Your task to perform on an android device: turn off wifi Image 0: 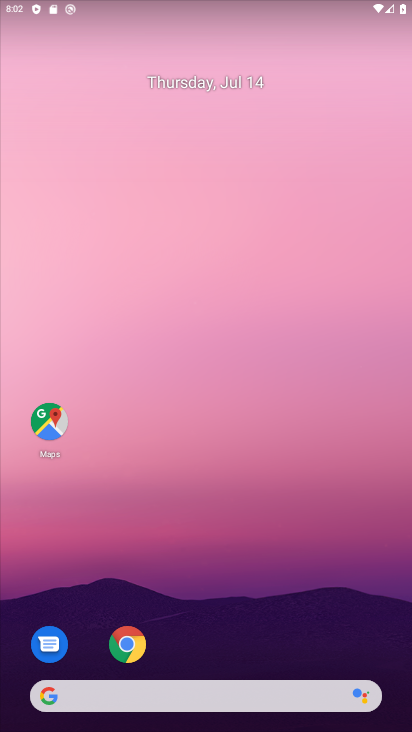
Step 0: drag from (209, 666) to (263, 190)
Your task to perform on an android device: turn off wifi Image 1: 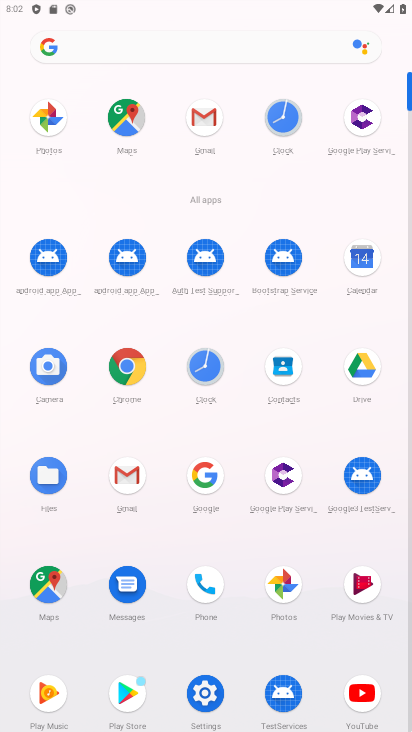
Step 1: drag from (227, 644) to (257, 440)
Your task to perform on an android device: turn off wifi Image 2: 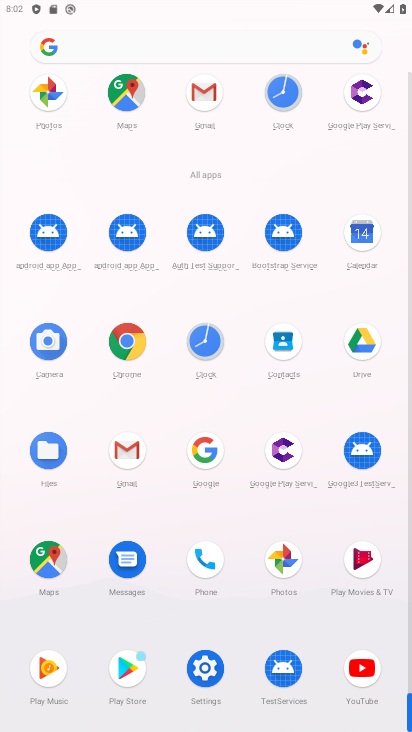
Step 2: drag from (237, 642) to (251, 348)
Your task to perform on an android device: turn off wifi Image 3: 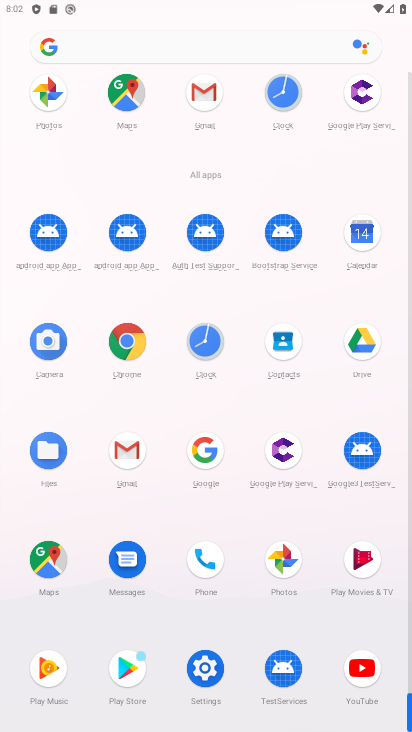
Step 3: drag from (254, 640) to (254, 563)
Your task to perform on an android device: turn off wifi Image 4: 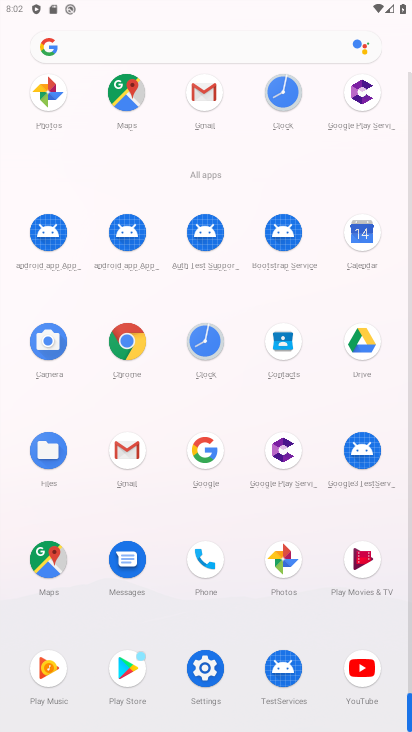
Step 4: drag from (243, 613) to (247, 378)
Your task to perform on an android device: turn off wifi Image 5: 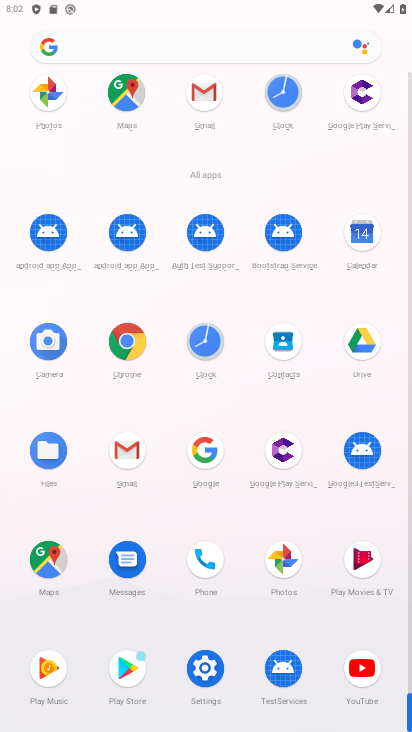
Step 5: drag from (230, 589) to (232, 435)
Your task to perform on an android device: turn off wifi Image 6: 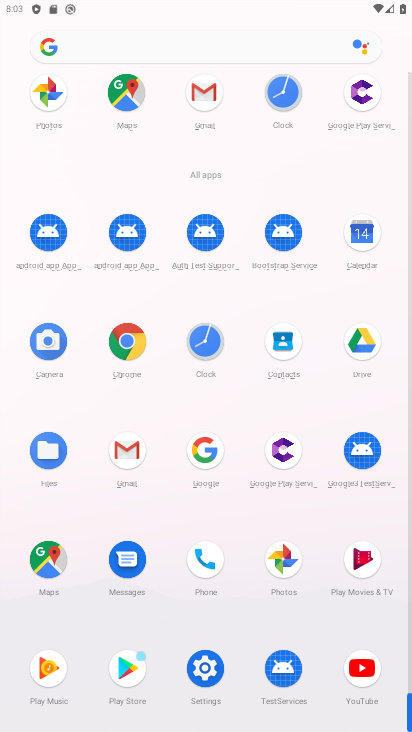
Step 6: click (210, 673)
Your task to perform on an android device: turn off wifi Image 7: 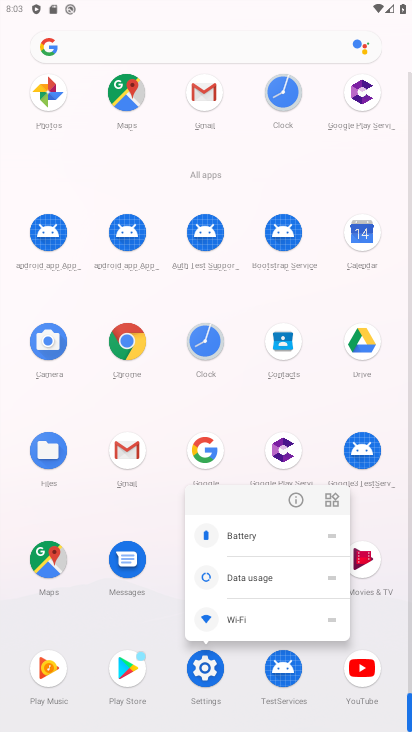
Step 7: click (296, 495)
Your task to perform on an android device: turn off wifi Image 8: 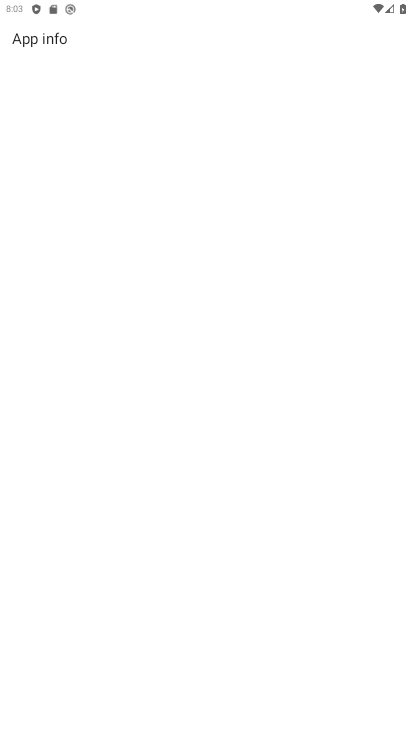
Step 8: drag from (219, 633) to (228, 347)
Your task to perform on an android device: turn off wifi Image 9: 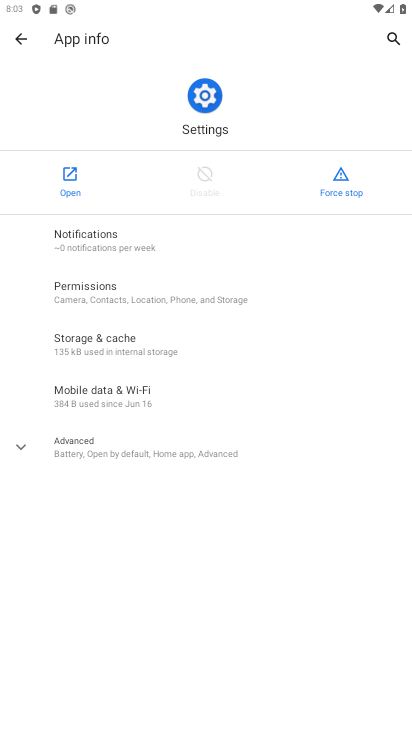
Step 9: click (80, 189)
Your task to perform on an android device: turn off wifi Image 10: 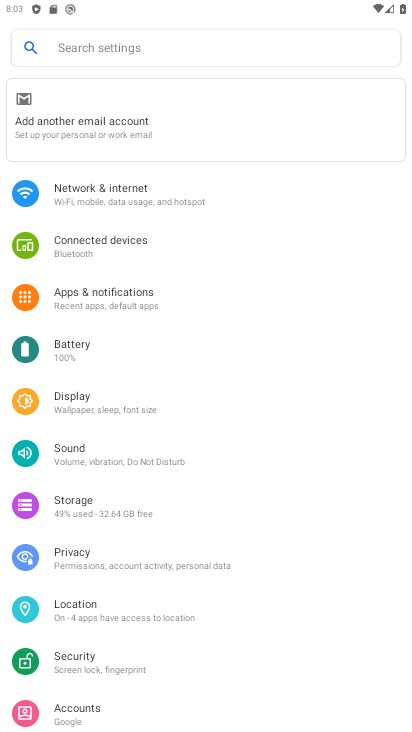
Step 10: drag from (208, 621) to (257, 361)
Your task to perform on an android device: turn off wifi Image 11: 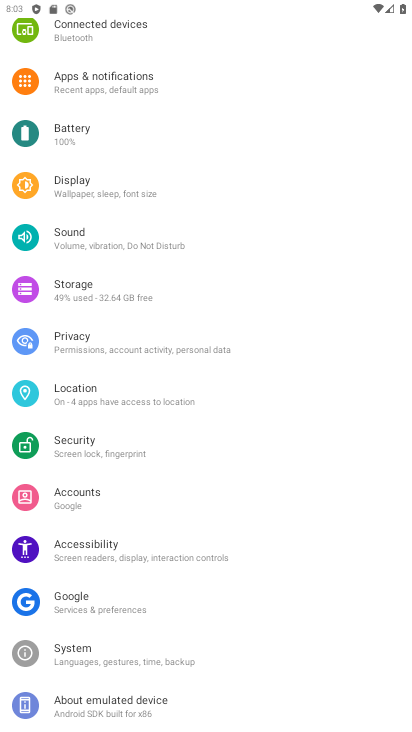
Step 11: drag from (159, 68) to (199, 518)
Your task to perform on an android device: turn off wifi Image 12: 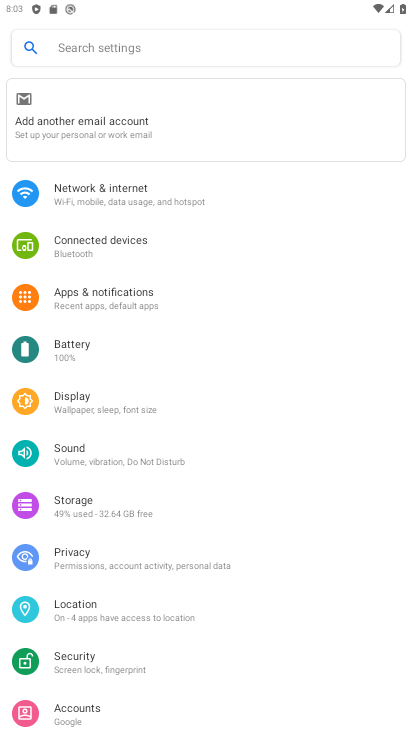
Step 12: click (100, 208)
Your task to perform on an android device: turn off wifi Image 13: 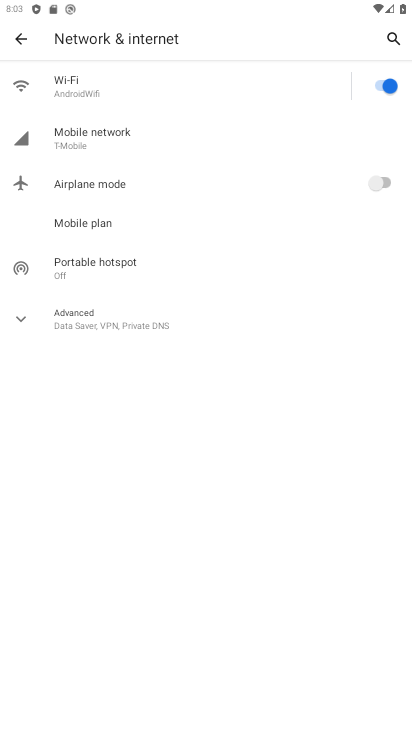
Step 13: drag from (181, 365) to (190, 232)
Your task to perform on an android device: turn off wifi Image 14: 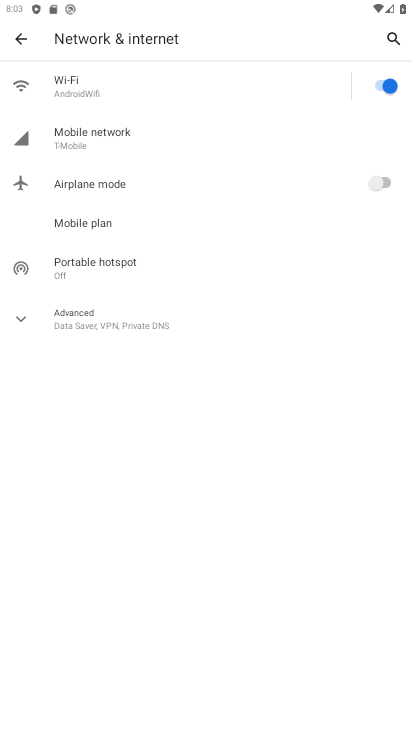
Step 14: click (185, 100)
Your task to perform on an android device: turn off wifi Image 15: 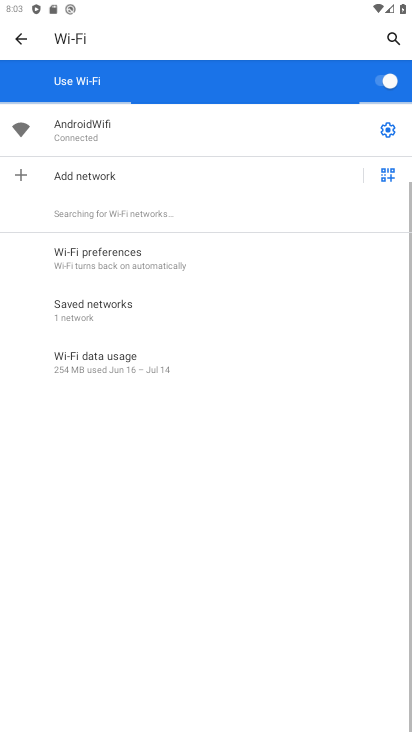
Step 15: drag from (183, 462) to (195, 216)
Your task to perform on an android device: turn off wifi Image 16: 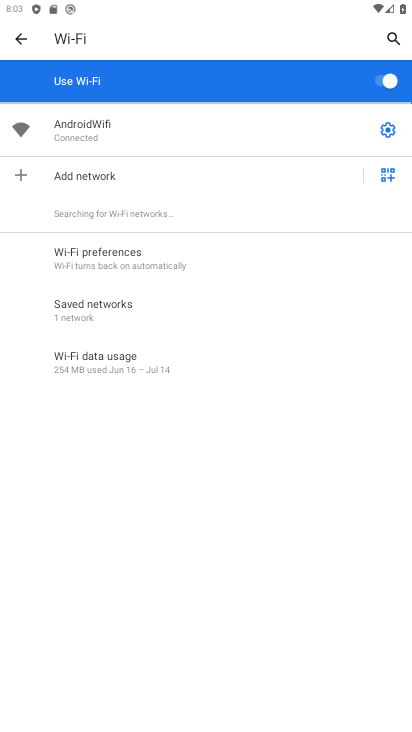
Step 16: drag from (183, 388) to (191, 312)
Your task to perform on an android device: turn off wifi Image 17: 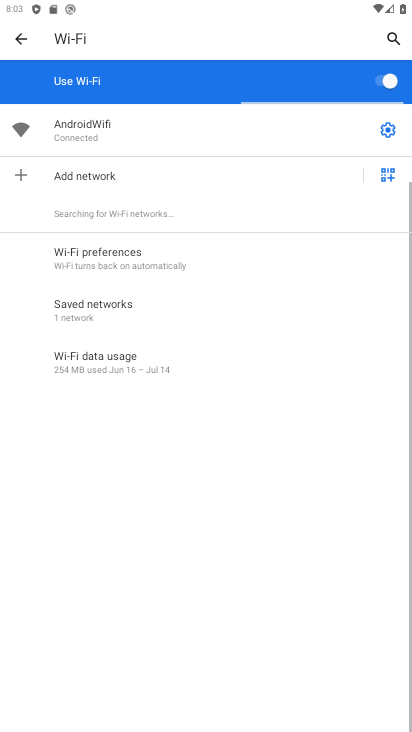
Step 17: drag from (164, 487) to (197, 248)
Your task to perform on an android device: turn off wifi Image 18: 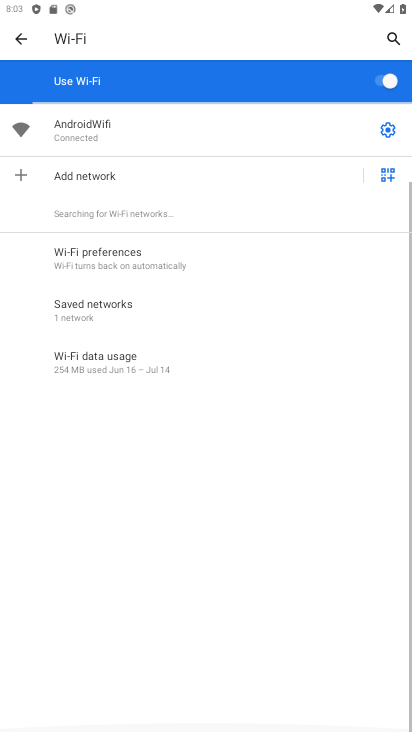
Step 18: drag from (217, 525) to (204, 330)
Your task to perform on an android device: turn off wifi Image 19: 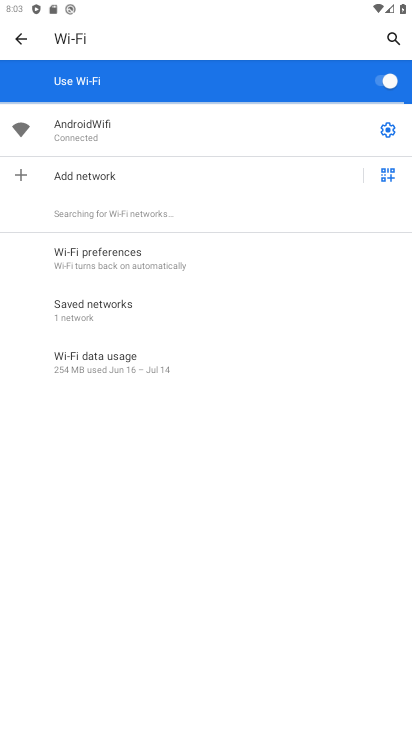
Step 19: click (382, 81)
Your task to perform on an android device: turn off wifi Image 20: 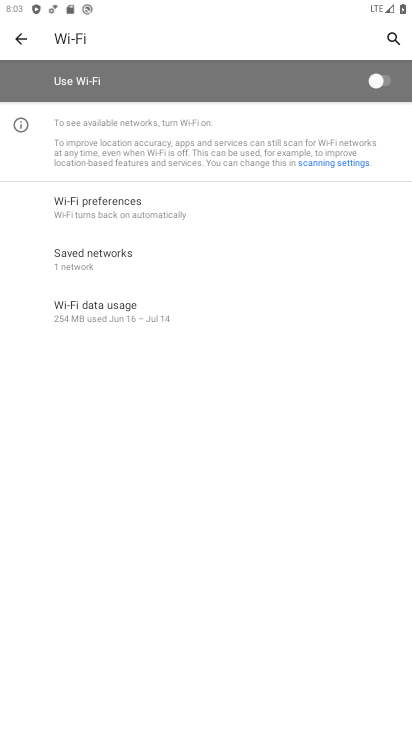
Step 20: task complete